Your task to perform on an android device: empty trash in google photos Image 0: 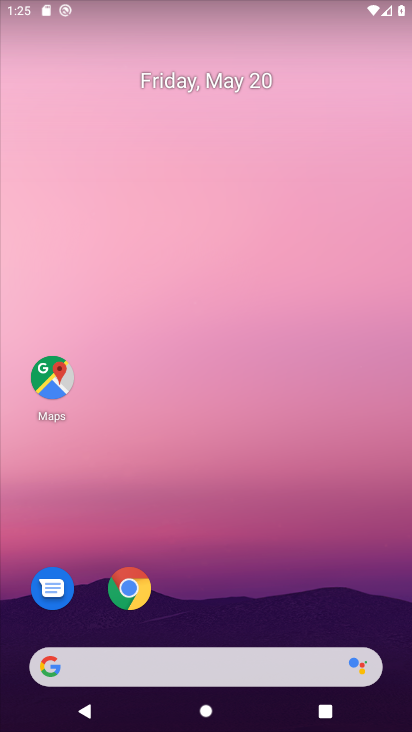
Step 0: drag from (29, 600) to (232, 208)
Your task to perform on an android device: empty trash in google photos Image 1: 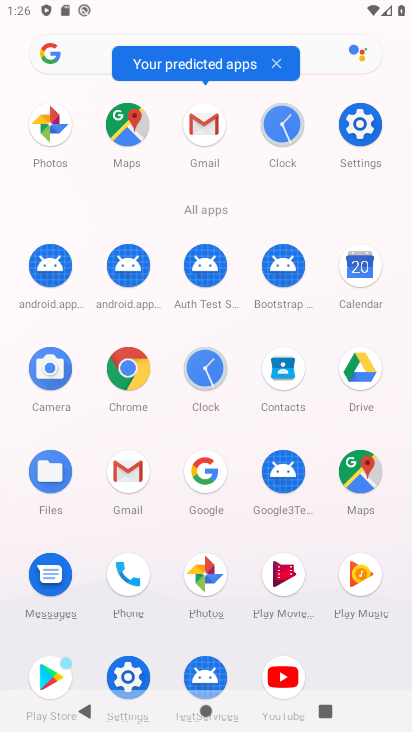
Step 1: click (45, 130)
Your task to perform on an android device: empty trash in google photos Image 2: 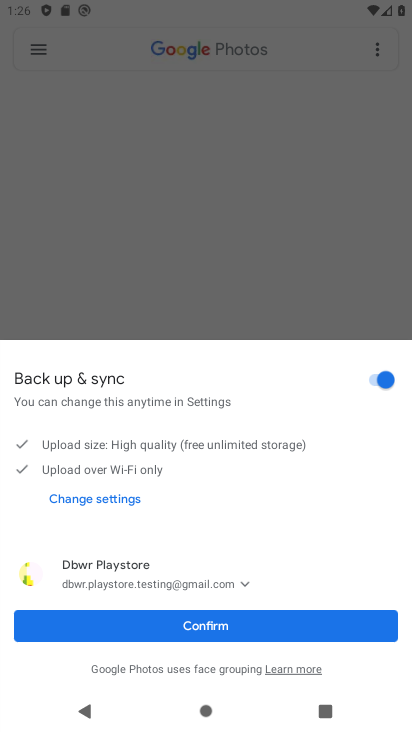
Step 2: click (276, 617)
Your task to perform on an android device: empty trash in google photos Image 3: 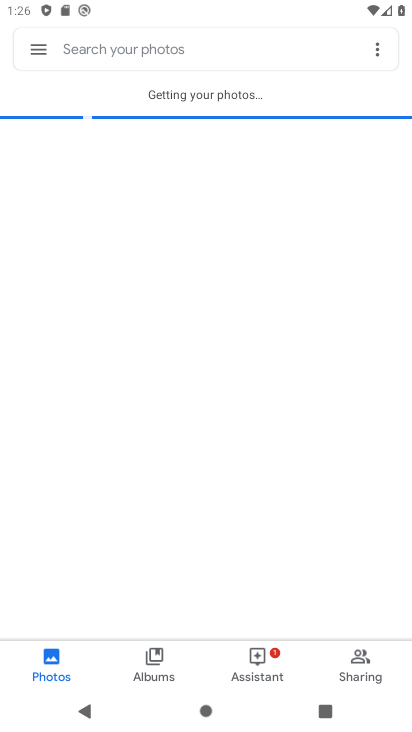
Step 3: click (33, 50)
Your task to perform on an android device: empty trash in google photos Image 4: 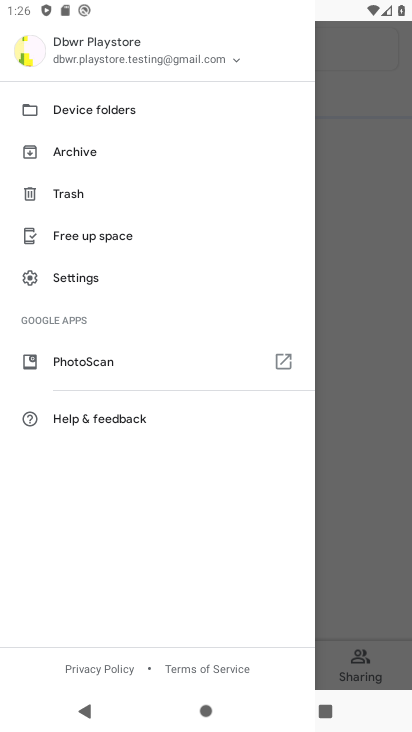
Step 4: click (83, 195)
Your task to perform on an android device: empty trash in google photos Image 5: 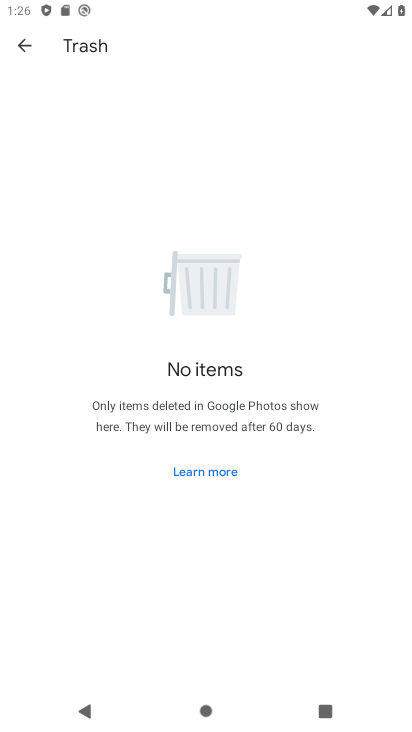
Step 5: task complete